Your task to perform on an android device: show emergency info Image 0: 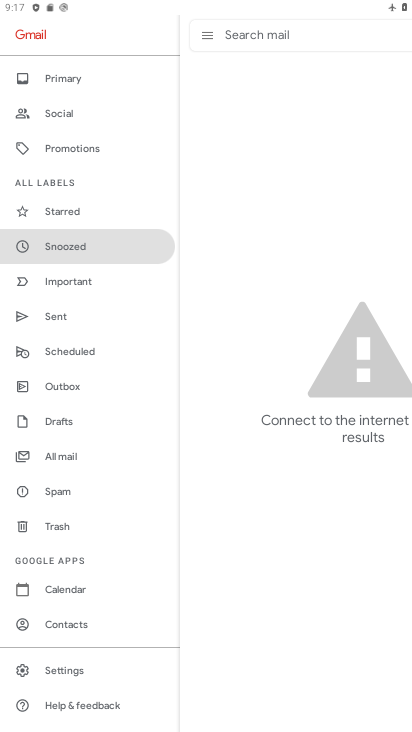
Step 0: press home button
Your task to perform on an android device: show emergency info Image 1: 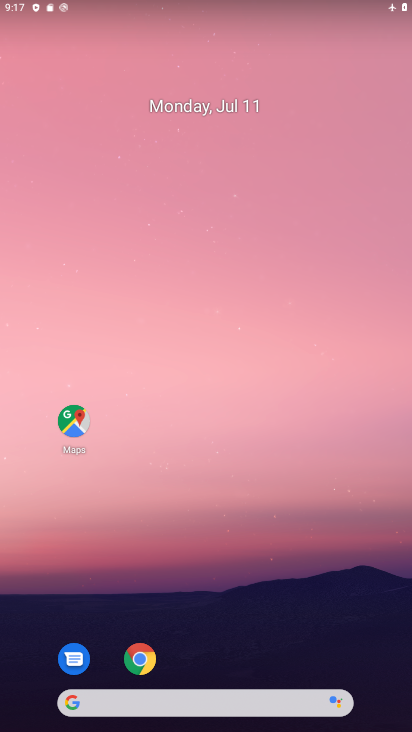
Step 1: drag from (193, 657) to (250, 200)
Your task to perform on an android device: show emergency info Image 2: 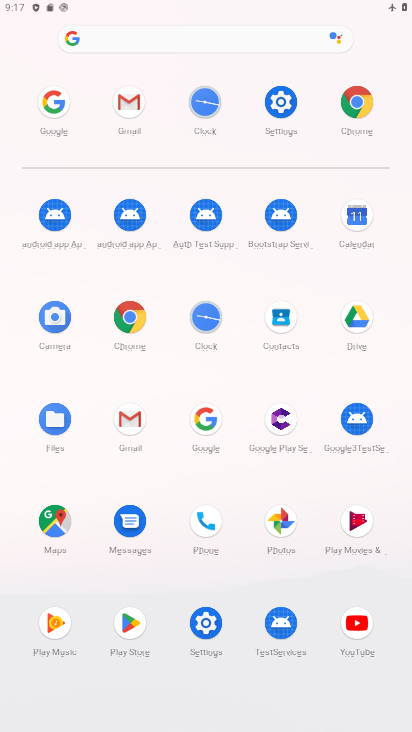
Step 2: click (271, 108)
Your task to perform on an android device: show emergency info Image 3: 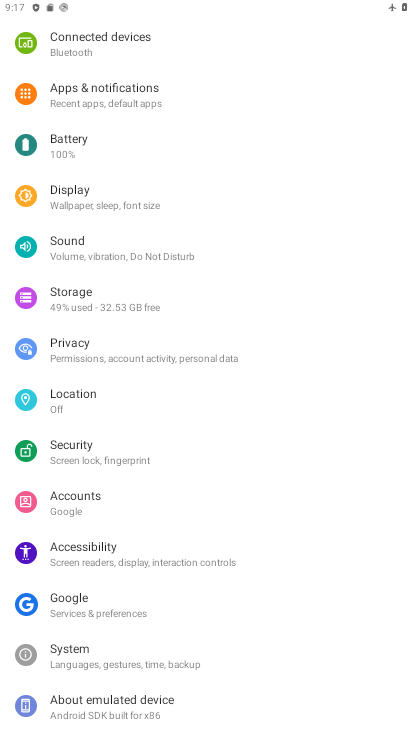
Step 3: click (132, 697)
Your task to perform on an android device: show emergency info Image 4: 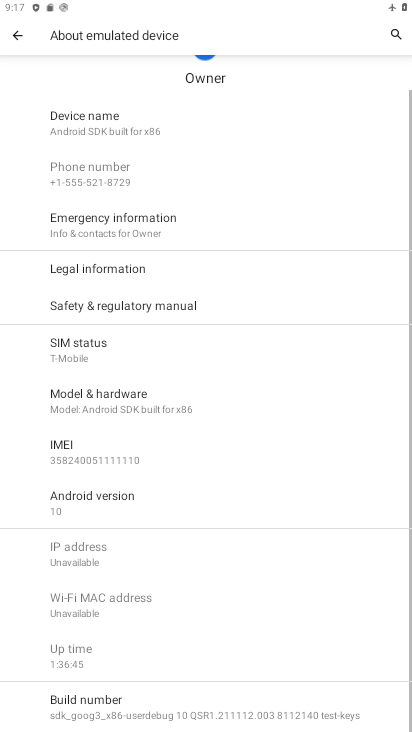
Step 4: click (162, 231)
Your task to perform on an android device: show emergency info Image 5: 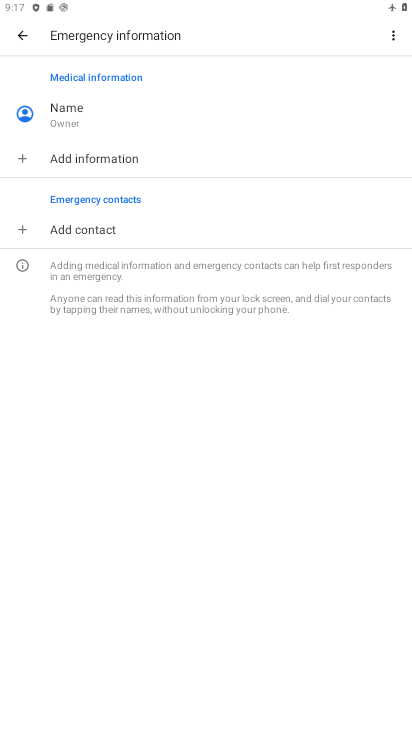
Step 5: task complete